Your task to perform on an android device: What is the news today? Image 0: 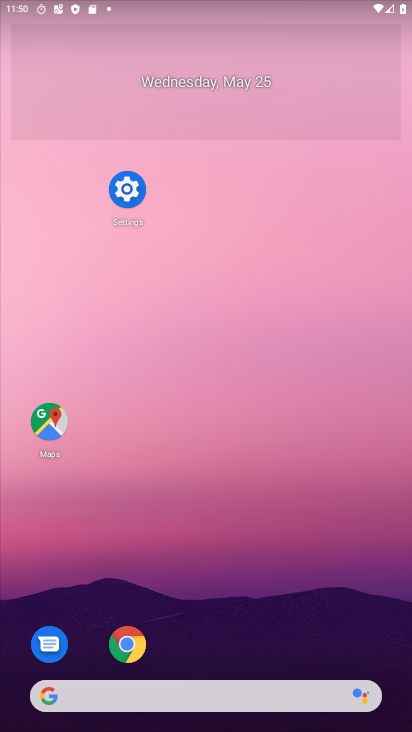
Step 0: drag from (220, 341) to (191, 87)
Your task to perform on an android device: What is the news today? Image 1: 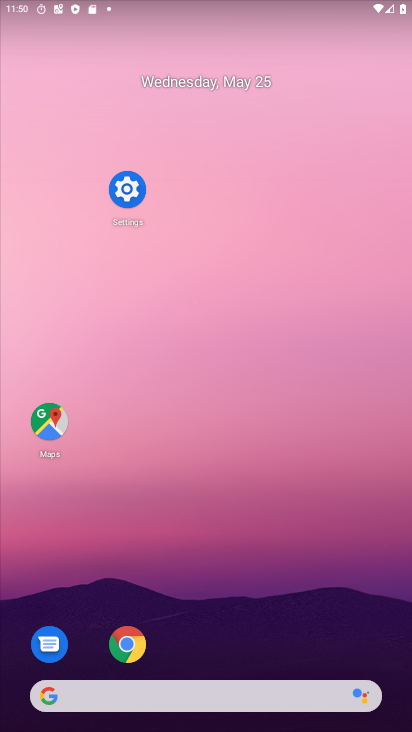
Step 1: drag from (244, 599) to (181, 103)
Your task to perform on an android device: What is the news today? Image 2: 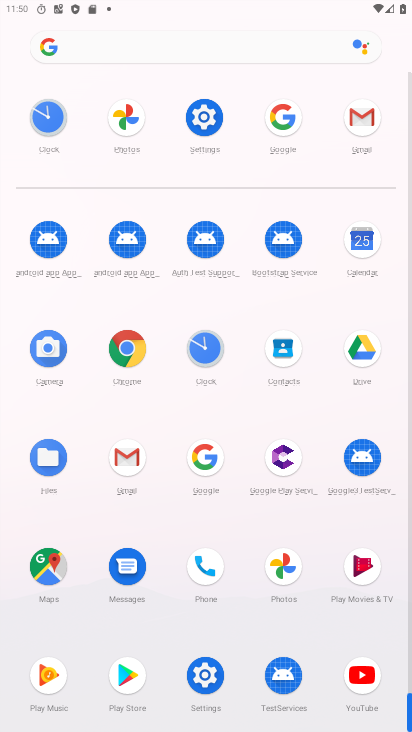
Step 2: click (215, 457)
Your task to perform on an android device: What is the news today? Image 3: 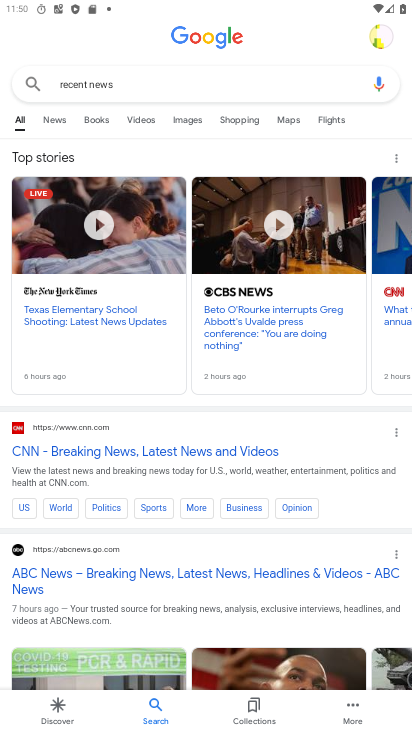
Step 3: click (191, 82)
Your task to perform on an android device: What is the news today? Image 4: 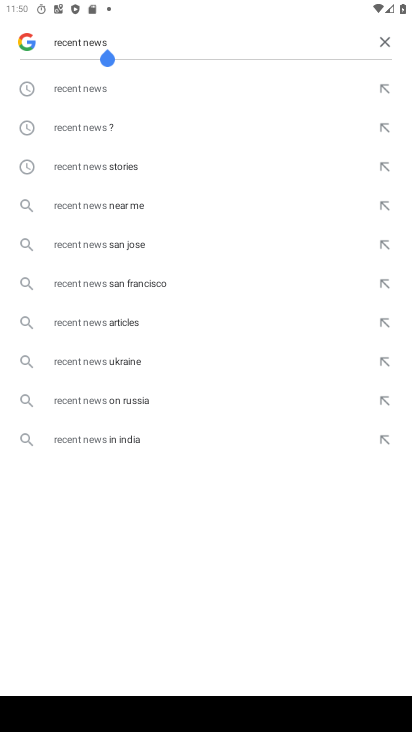
Step 4: click (374, 48)
Your task to perform on an android device: What is the news today? Image 5: 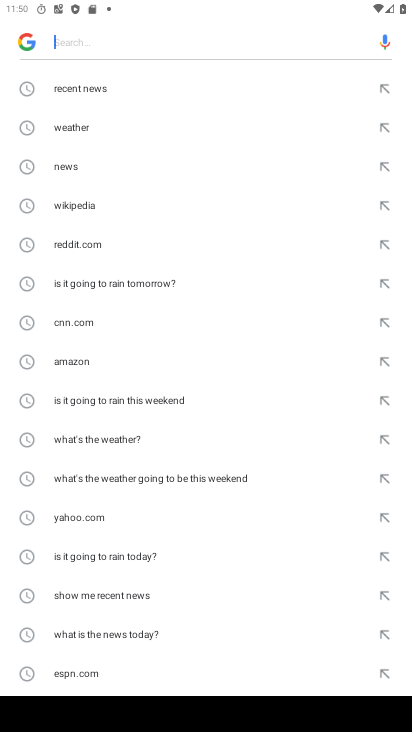
Step 5: click (111, 173)
Your task to perform on an android device: What is the news today? Image 6: 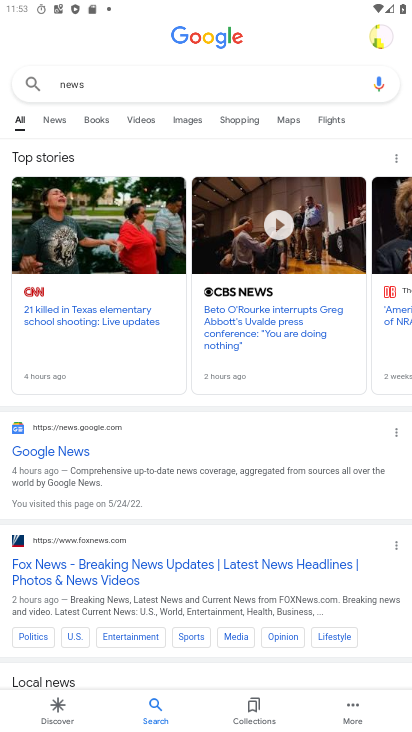
Step 6: task complete